Your task to perform on an android device: Go to Maps Image 0: 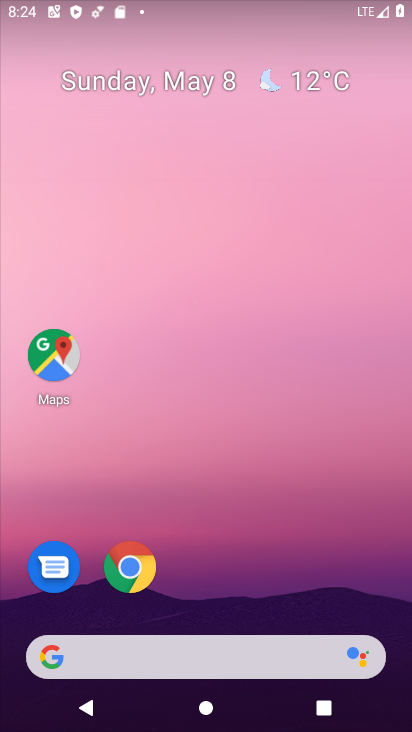
Step 0: click (52, 365)
Your task to perform on an android device: Go to Maps Image 1: 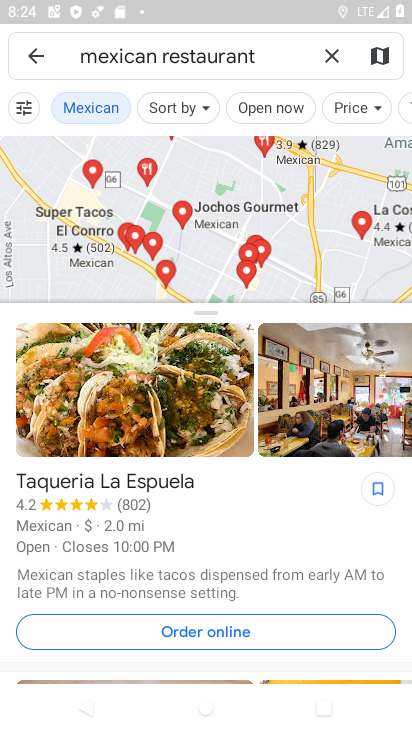
Step 1: task complete